Your task to perform on an android device: open wifi settings Image 0: 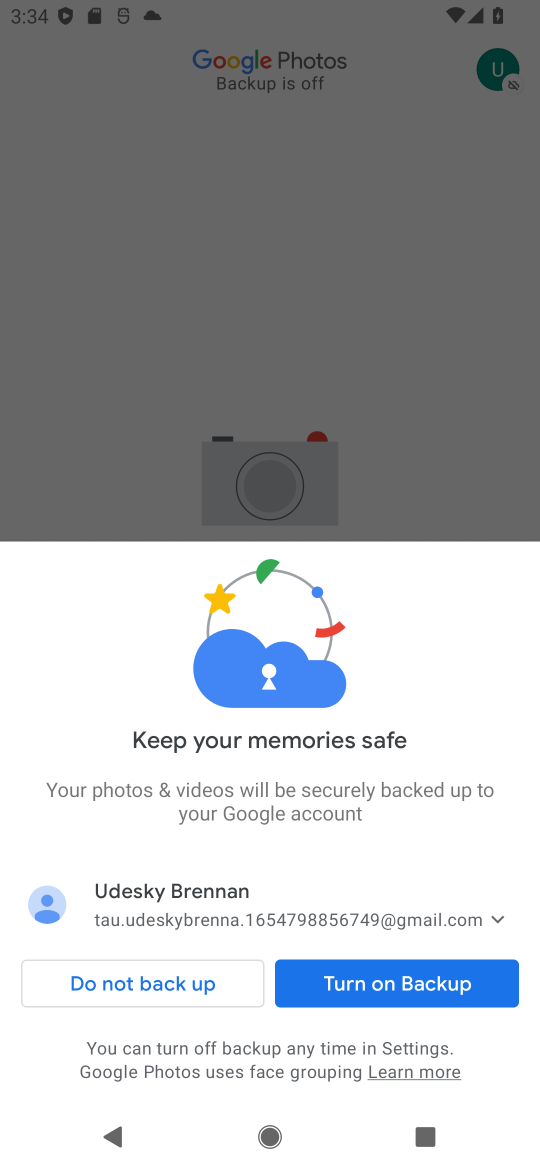
Step 0: press home button
Your task to perform on an android device: open wifi settings Image 1: 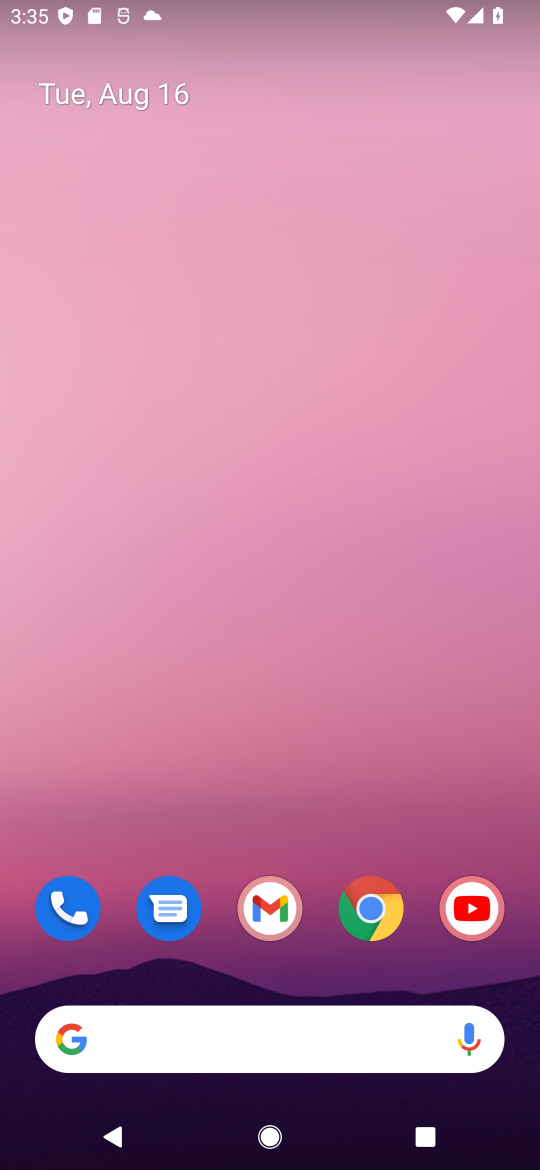
Step 1: drag from (309, 877) to (372, 70)
Your task to perform on an android device: open wifi settings Image 2: 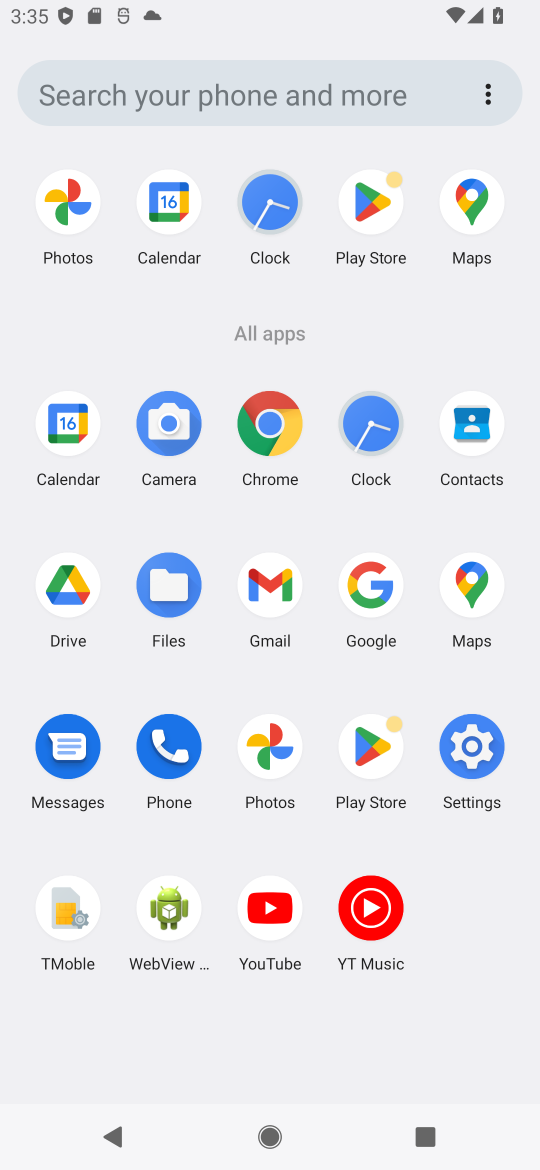
Step 2: click (466, 735)
Your task to perform on an android device: open wifi settings Image 3: 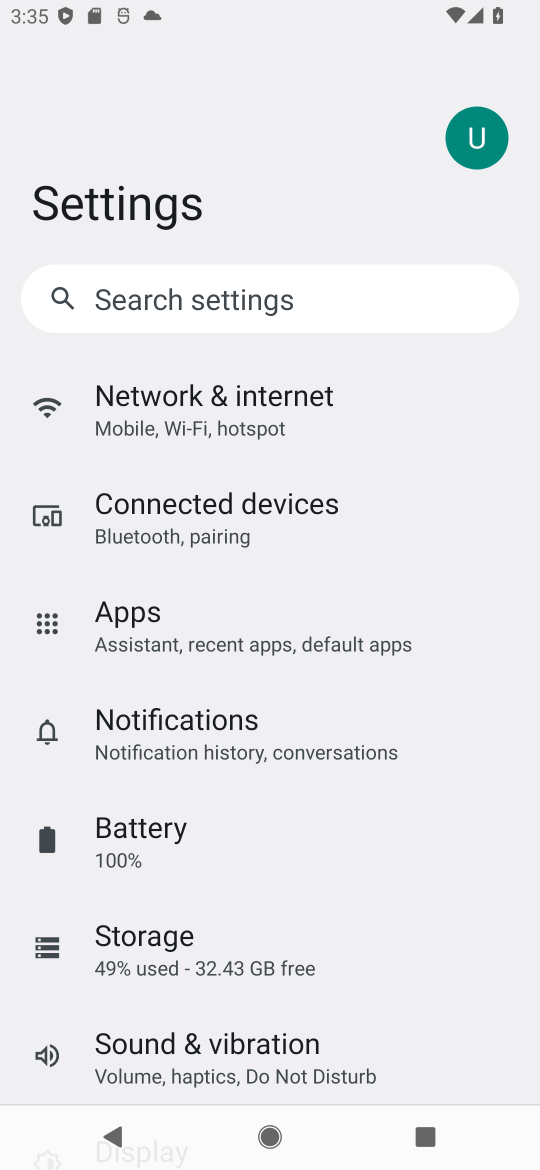
Step 3: click (299, 412)
Your task to perform on an android device: open wifi settings Image 4: 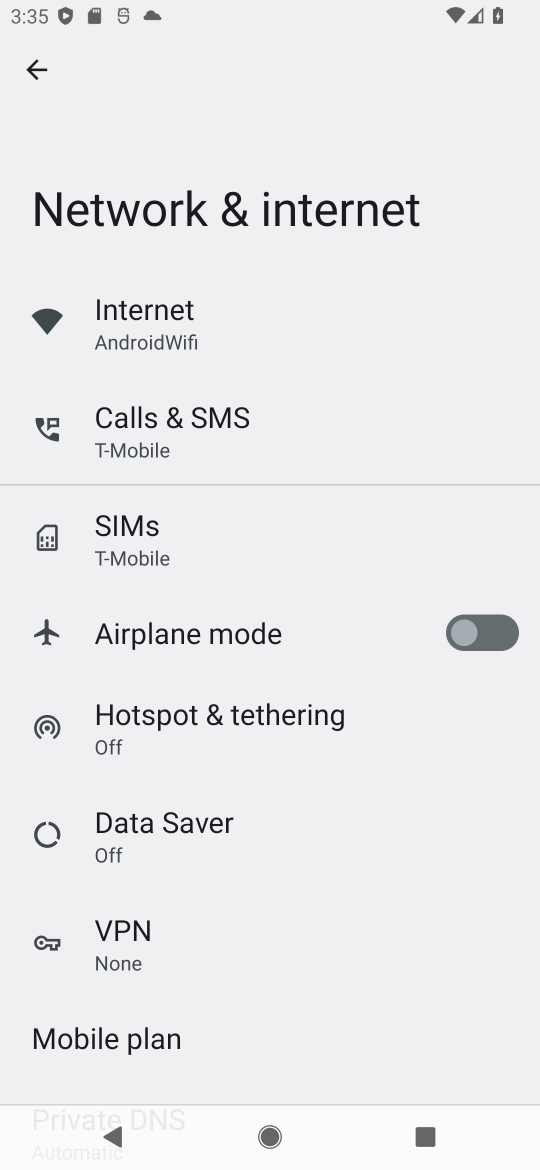
Step 4: click (210, 324)
Your task to perform on an android device: open wifi settings Image 5: 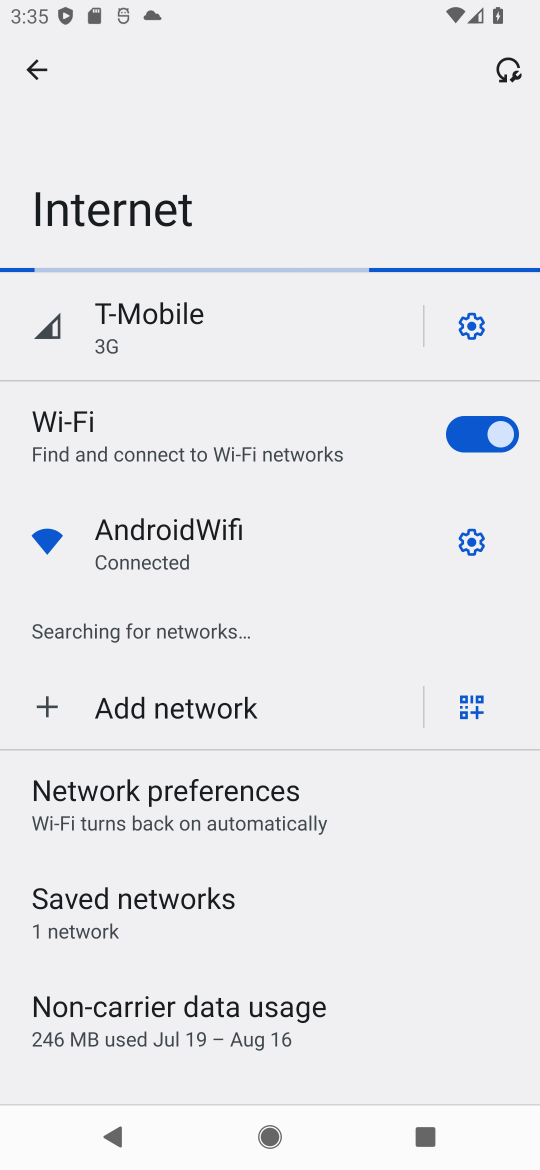
Step 5: task complete